Your task to perform on an android device: open device folders in google photos Image 0: 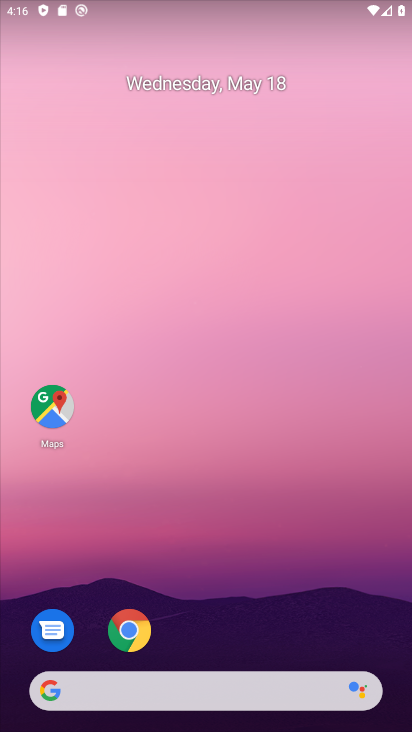
Step 0: drag from (238, 659) to (177, 107)
Your task to perform on an android device: open device folders in google photos Image 1: 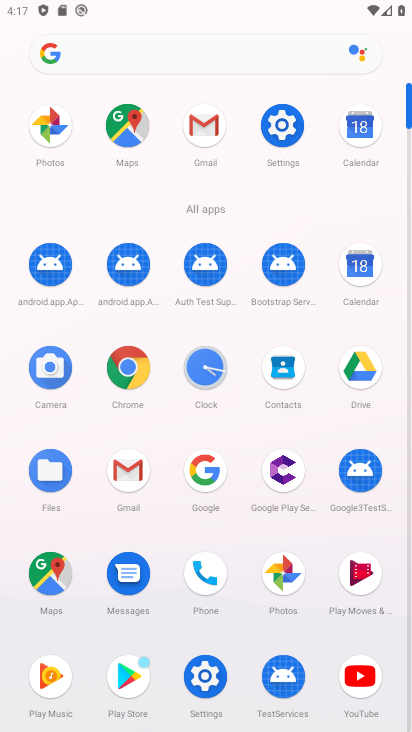
Step 1: click (276, 585)
Your task to perform on an android device: open device folders in google photos Image 2: 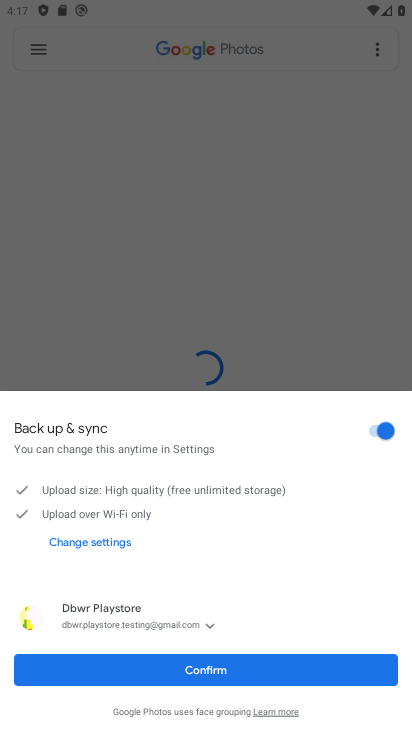
Step 2: click (263, 663)
Your task to perform on an android device: open device folders in google photos Image 3: 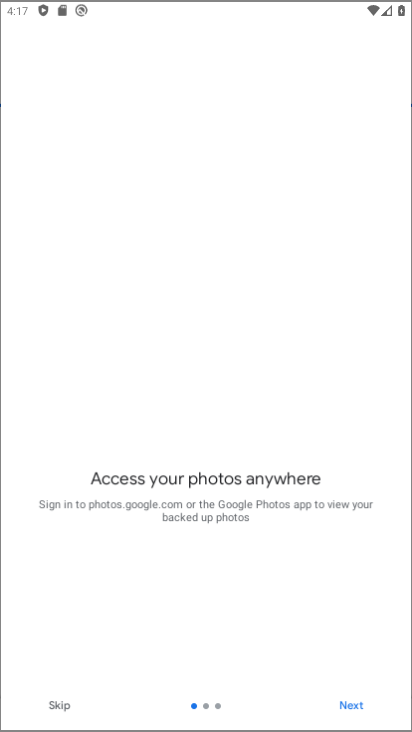
Step 3: click (35, 50)
Your task to perform on an android device: open device folders in google photos Image 4: 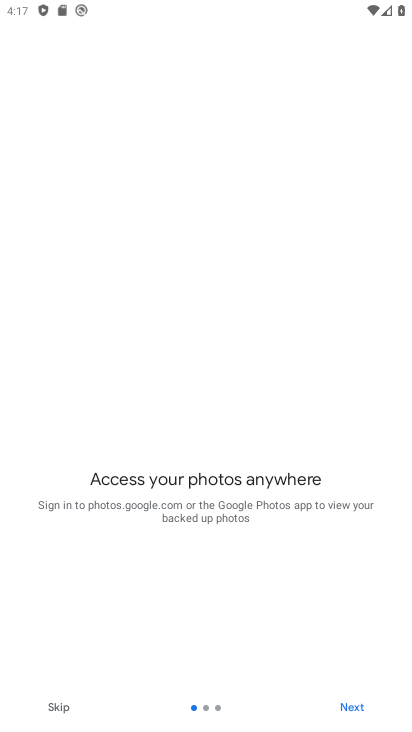
Step 4: click (66, 710)
Your task to perform on an android device: open device folders in google photos Image 5: 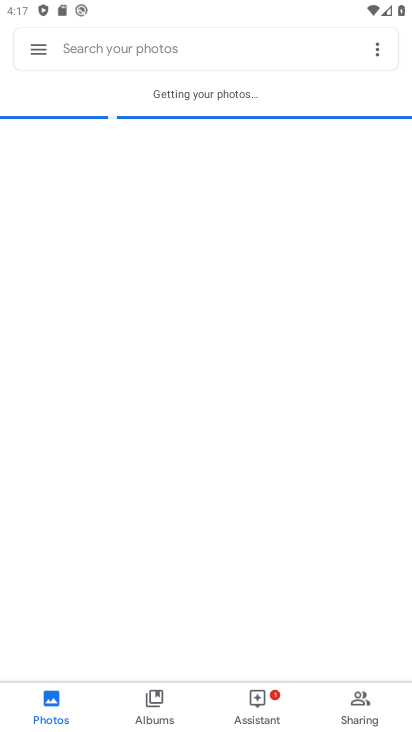
Step 5: click (47, 44)
Your task to perform on an android device: open device folders in google photos Image 6: 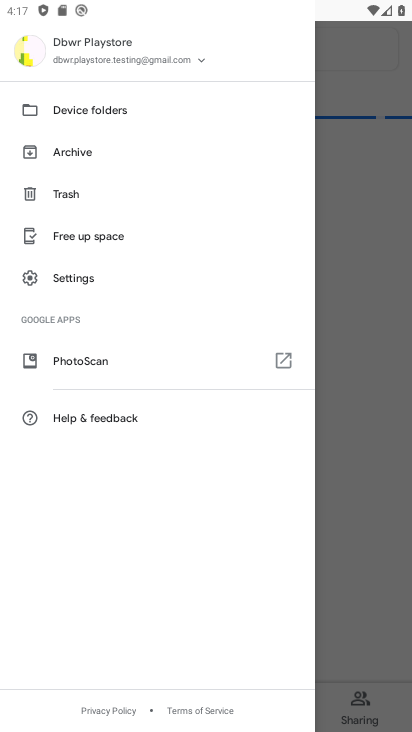
Step 6: click (61, 113)
Your task to perform on an android device: open device folders in google photos Image 7: 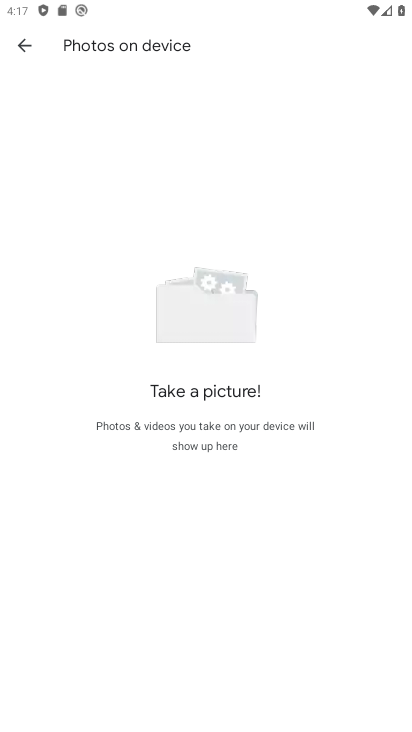
Step 7: task complete